Your task to perform on an android device: empty trash in google photos Image 0: 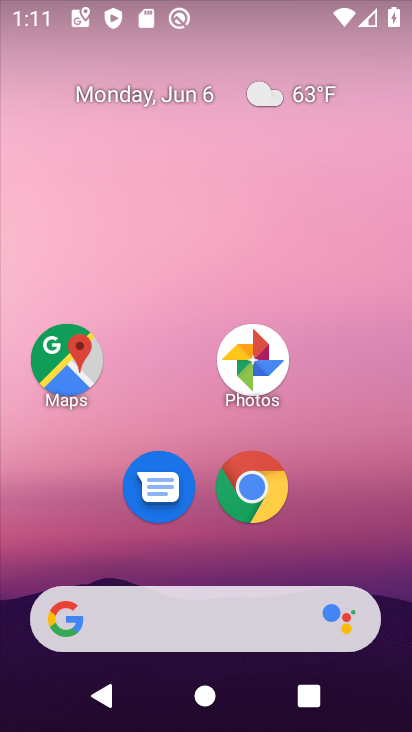
Step 0: drag from (83, 566) to (169, 125)
Your task to perform on an android device: empty trash in google photos Image 1: 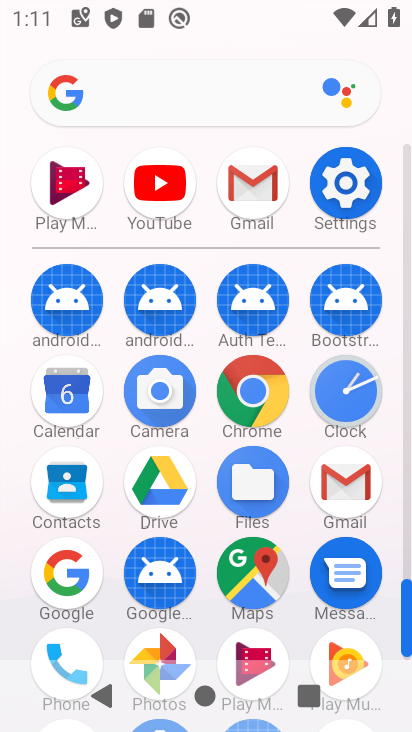
Step 1: drag from (171, 539) to (264, 229)
Your task to perform on an android device: empty trash in google photos Image 2: 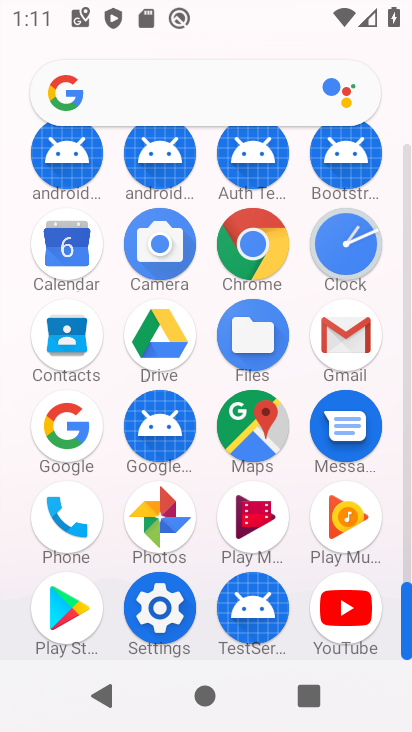
Step 2: click (155, 534)
Your task to perform on an android device: empty trash in google photos Image 3: 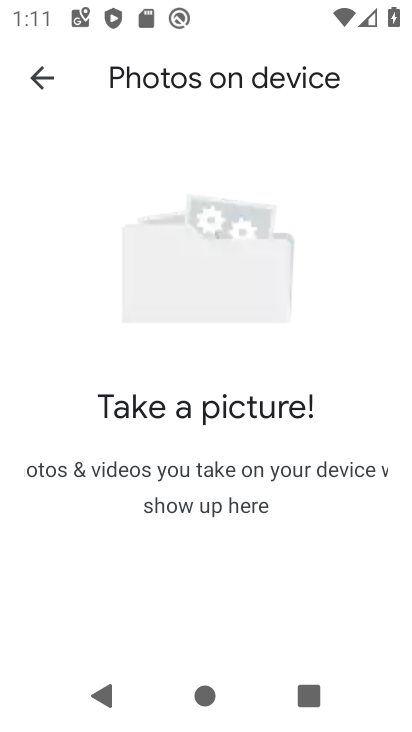
Step 3: click (36, 97)
Your task to perform on an android device: empty trash in google photos Image 4: 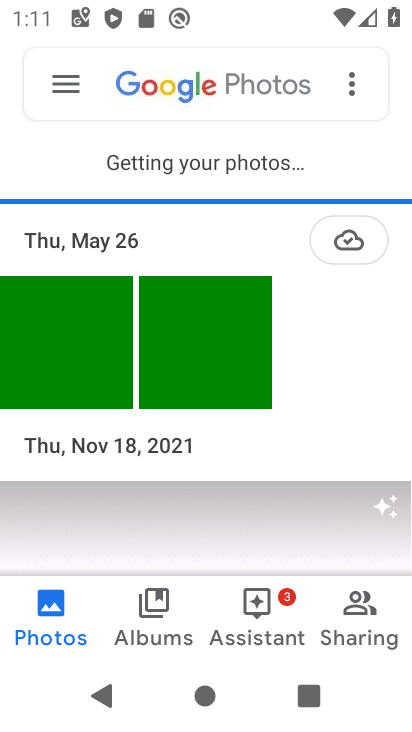
Step 4: click (74, 110)
Your task to perform on an android device: empty trash in google photos Image 5: 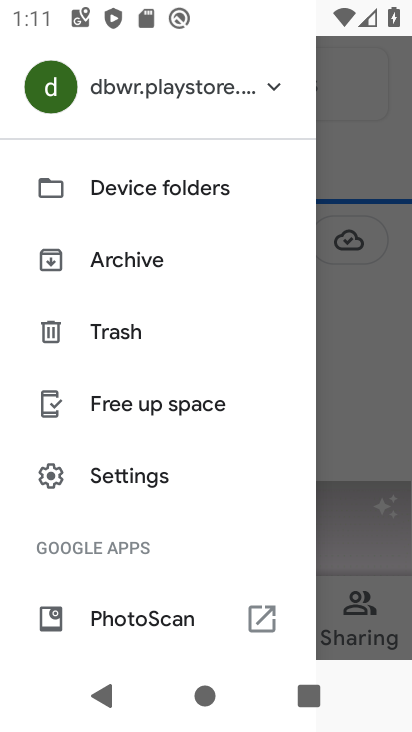
Step 5: click (134, 355)
Your task to perform on an android device: empty trash in google photos Image 6: 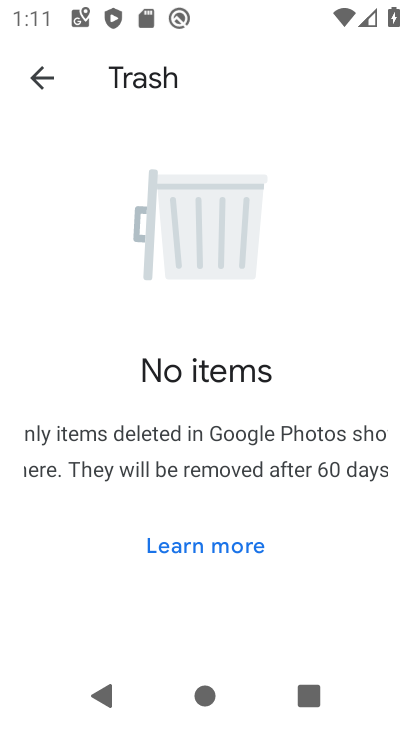
Step 6: task complete